Your task to perform on an android device: open app "DoorDash - Food Delivery" (install if not already installed) and go to login screen Image 0: 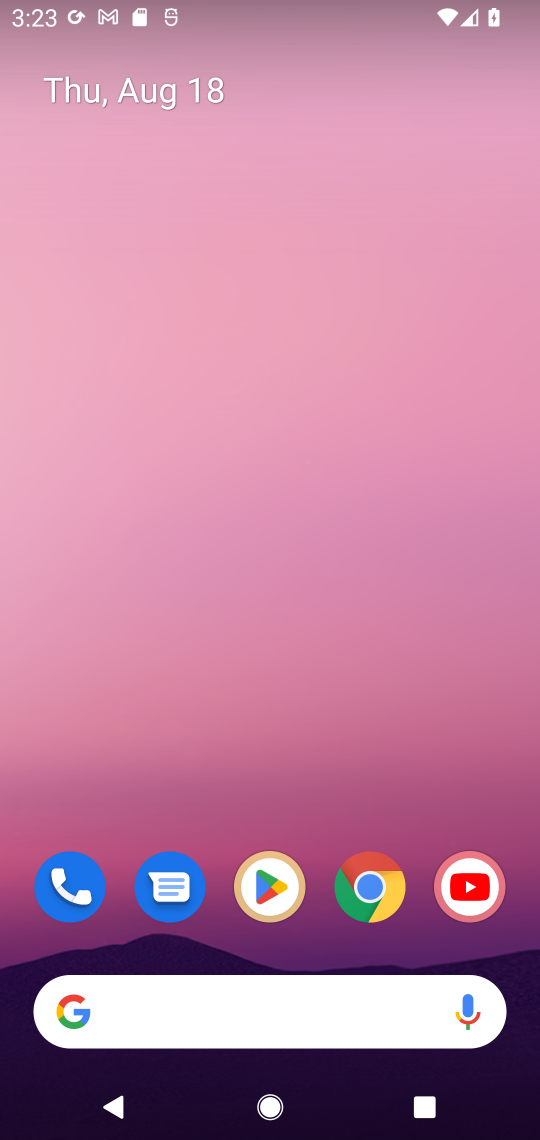
Step 0: click (266, 887)
Your task to perform on an android device: open app "DoorDash - Food Delivery" (install if not already installed) and go to login screen Image 1: 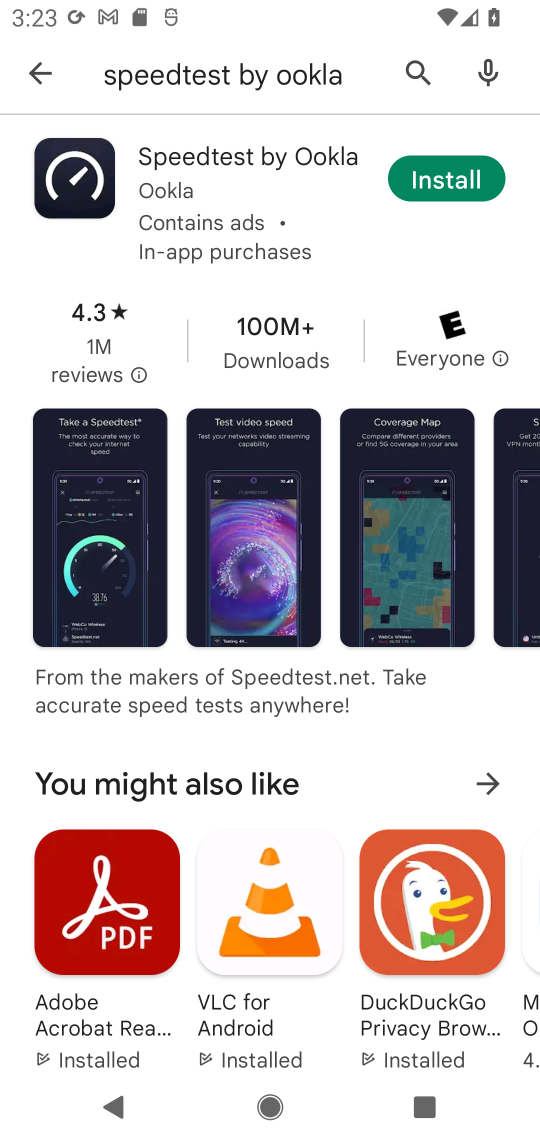
Step 1: click (399, 72)
Your task to perform on an android device: open app "DoorDash - Food Delivery" (install if not already installed) and go to login screen Image 2: 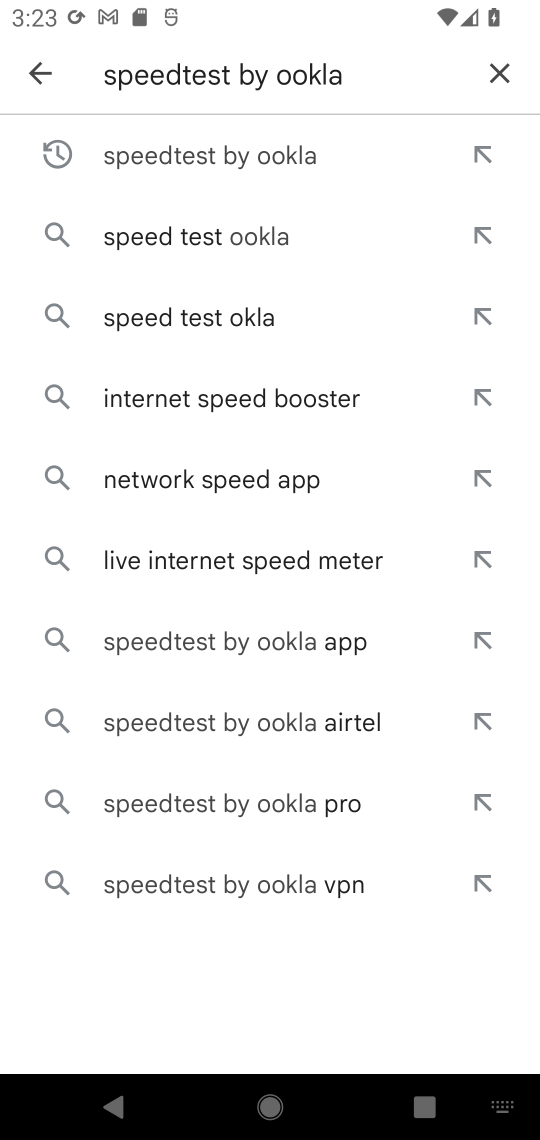
Step 2: click (495, 81)
Your task to perform on an android device: open app "DoorDash - Food Delivery" (install if not already installed) and go to login screen Image 3: 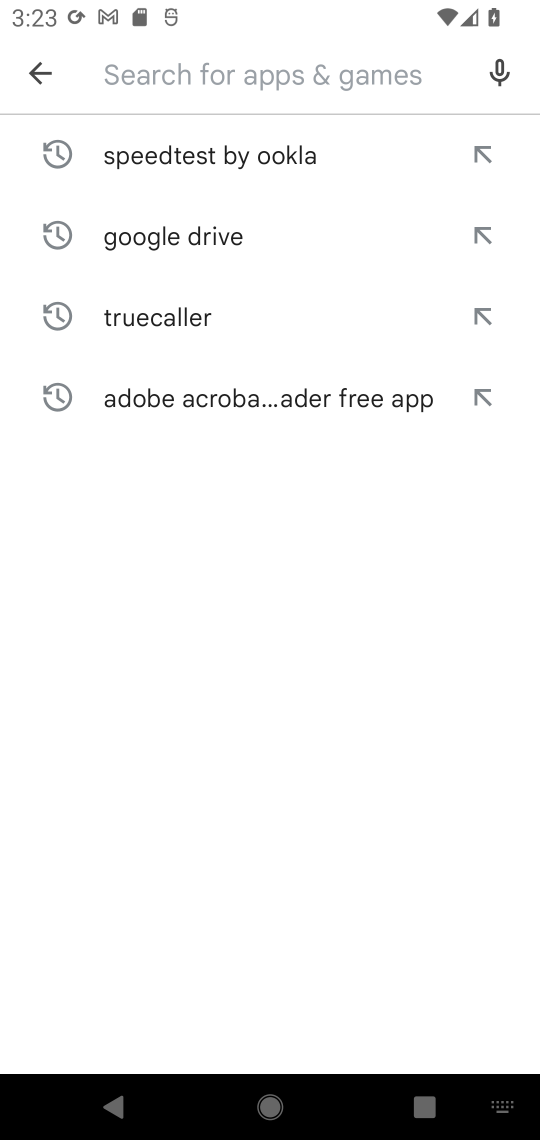
Step 3: type "DoorDash - Food Delivery"
Your task to perform on an android device: open app "DoorDash - Food Delivery" (install if not already installed) and go to login screen Image 4: 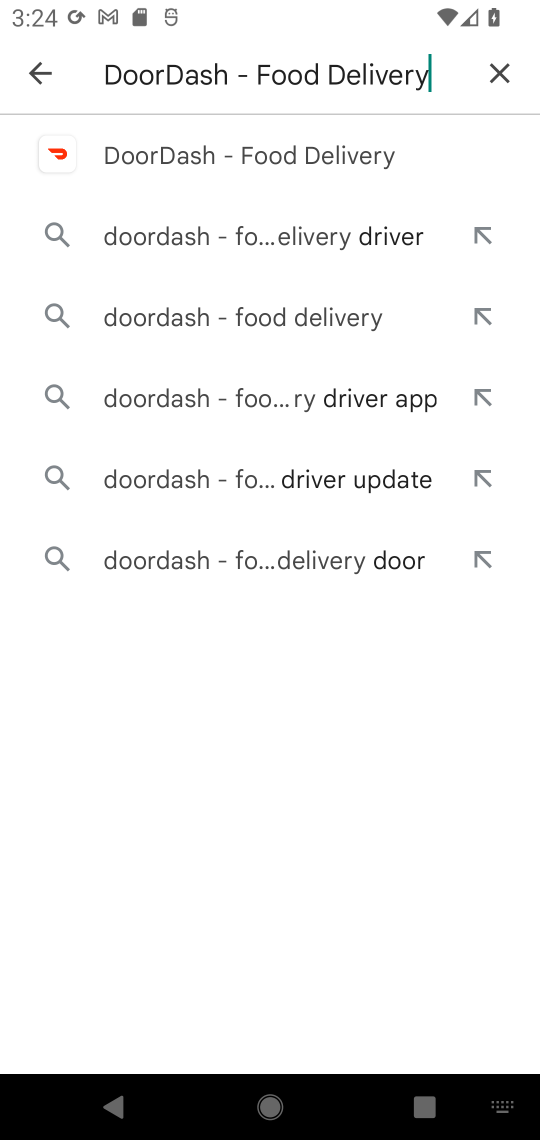
Step 4: click (318, 145)
Your task to perform on an android device: open app "DoorDash - Food Delivery" (install if not already installed) and go to login screen Image 5: 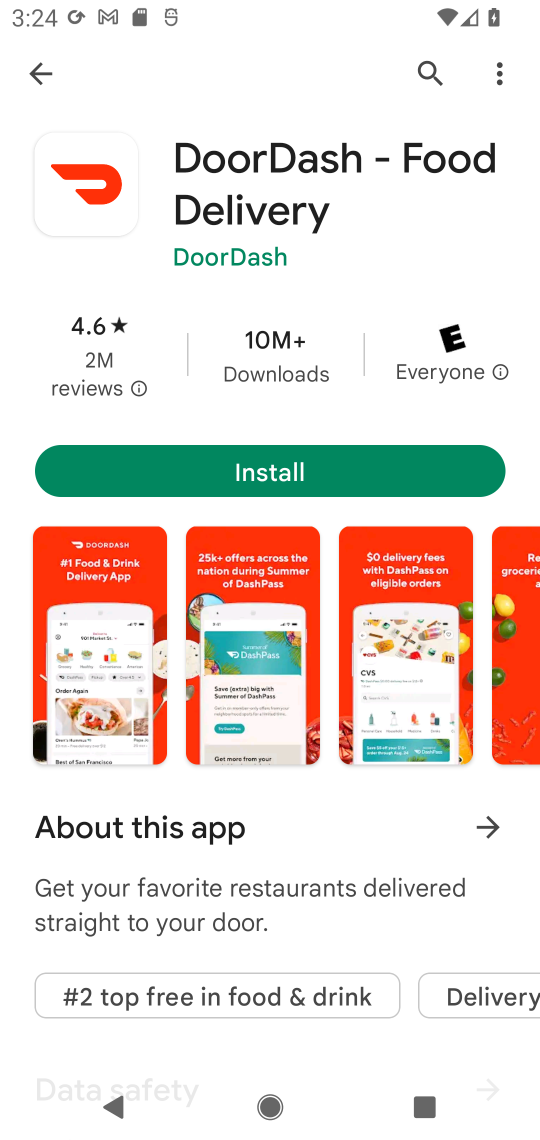
Step 5: click (273, 476)
Your task to perform on an android device: open app "DoorDash - Food Delivery" (install if not already installed) and go to login screen Image 6: 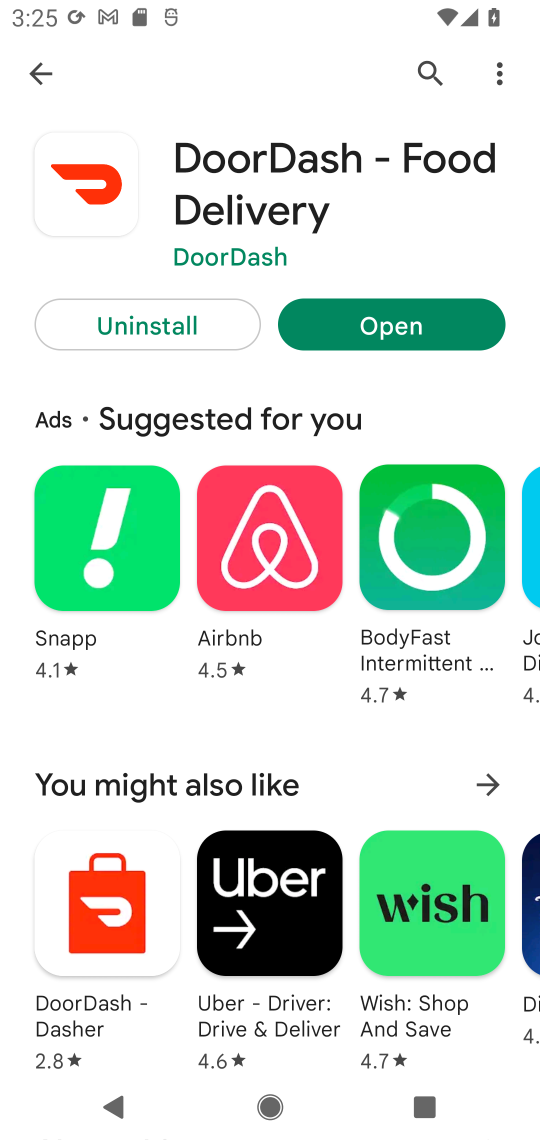
Step 6: click (385, 327)
Your task to perform on an android device: open app "DoorDash - Food Delivery" (install if not already installed) and go to login screen Image 7: 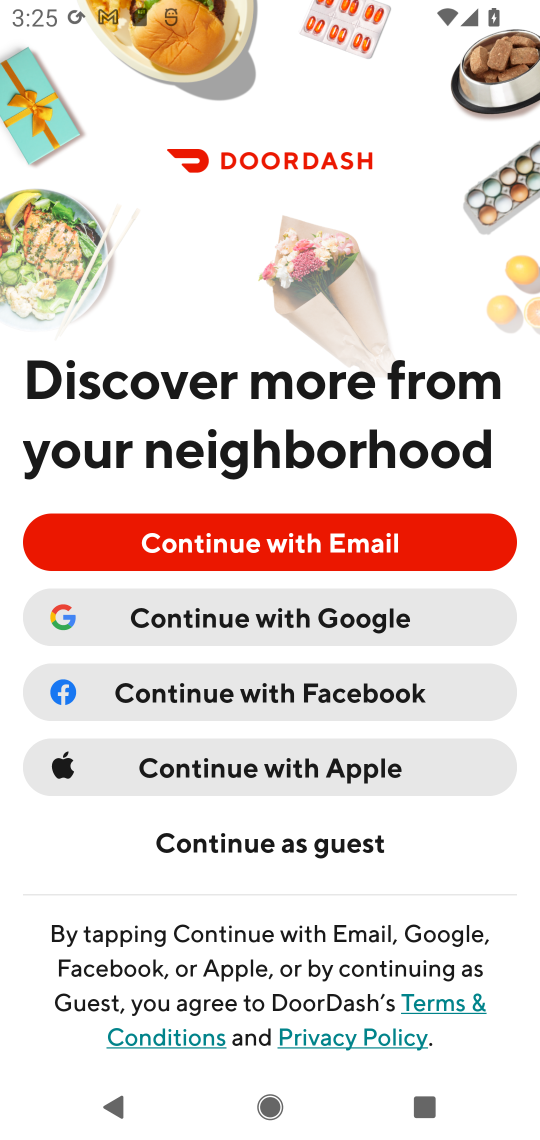
Step 7: click (281, 626)
Your task to perform on an android device: open app "DoorDash - Food Delivery" (install if not already installed) and go to login screen Image 8: 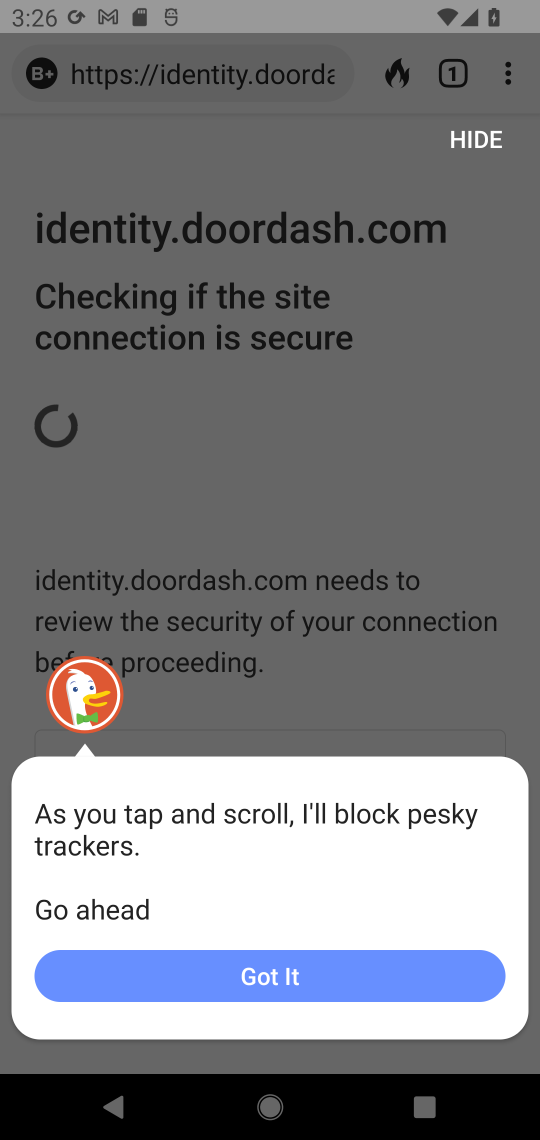
Step 8: click (286, 980)
Your task to perform on an android device: open app "DoorDash - Food Delivery" (install if not already installed) and go to login screen Image 9: 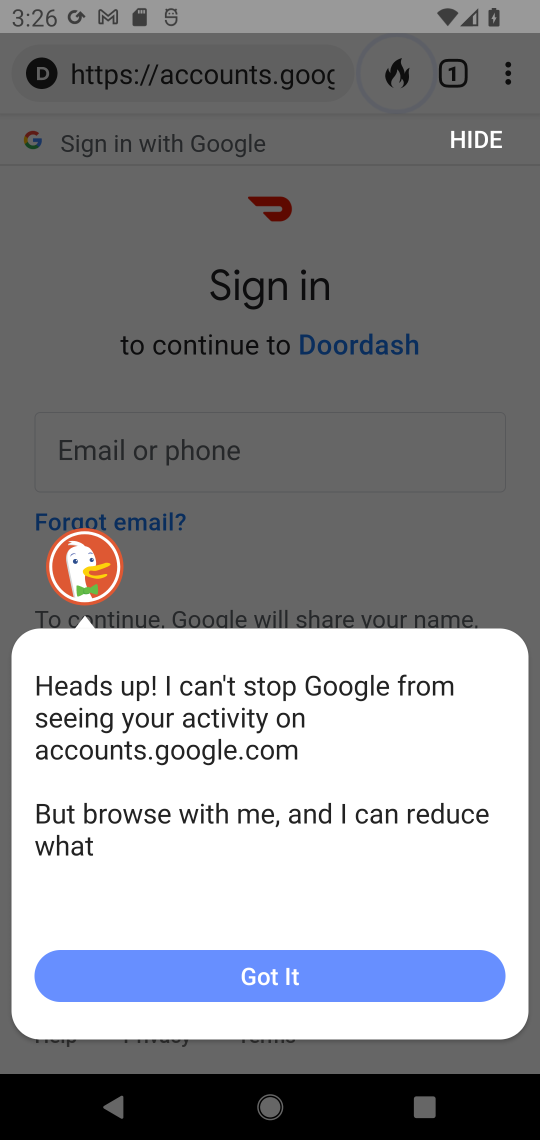
Step 9: task complete